Your task to perform on an android device: turn on showing notifications on the lock screen Image 0: 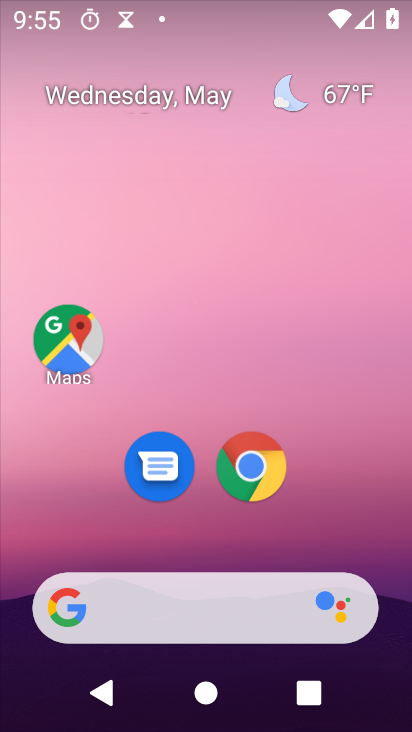
Step 0: drag from (296, 491) to (219, 59)
Your task to perform on an android device: turn on showing notifications on the lock screen Image 1: 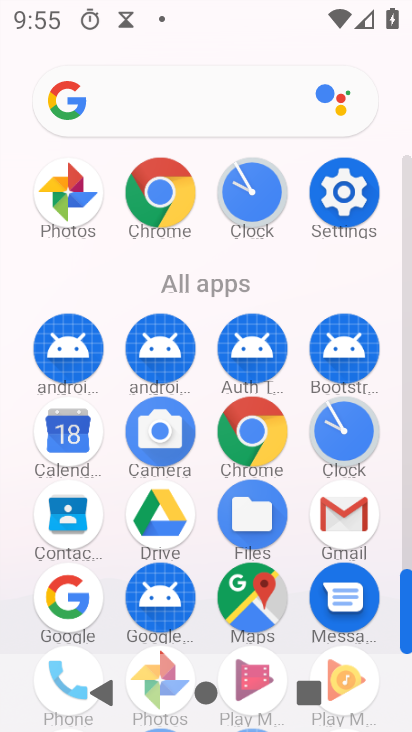
Step 1: click (340, 202)
Your task to perform on an android device: turn on showing notifications on the lock screen Image 2: 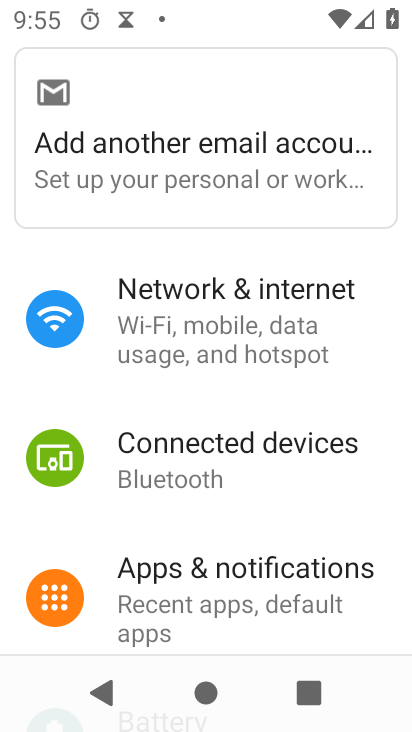
Step 2: drag from (220, 613) to (231, 389)
Your task to perform on an android device: turn on showing notifications on the lock screen Image 3: 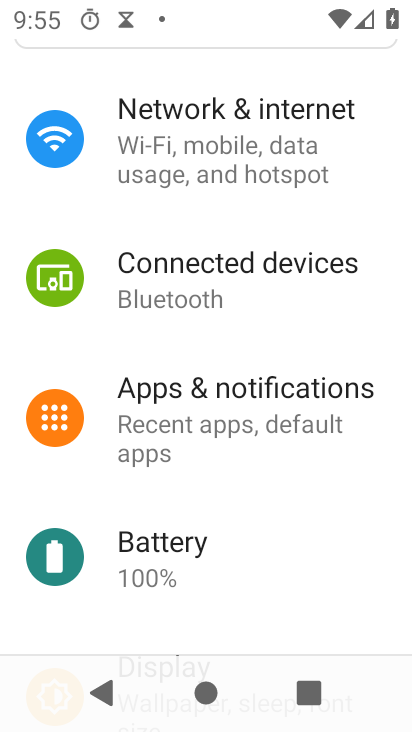
Step 3: click (217, 420)
Your task to perform on an android device: turn on showing notifications on the lock screen Image 4: 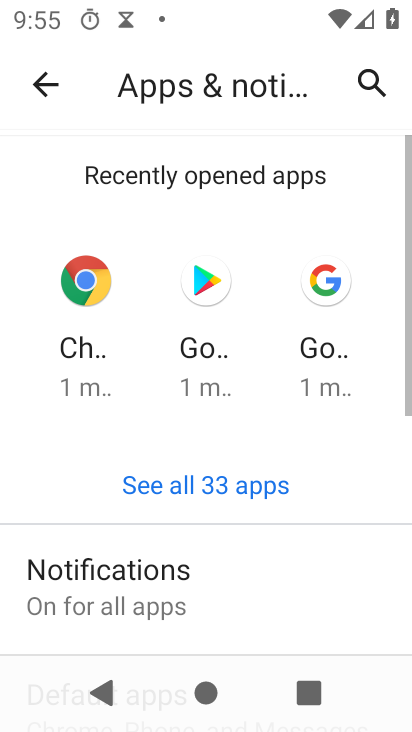
Step 4: drag from (200, 582) to (232, 283)
Your task to perform on an android device: turn on showing notifications on the lock screen Image 5: 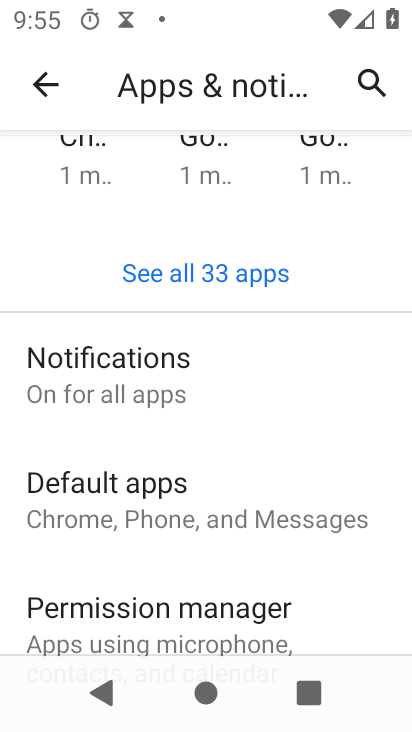
Step 5: drag from (222, 573) to (201, 344)
Your task to perform on an android device: turn on showing notifications on the lock screen Image 6: 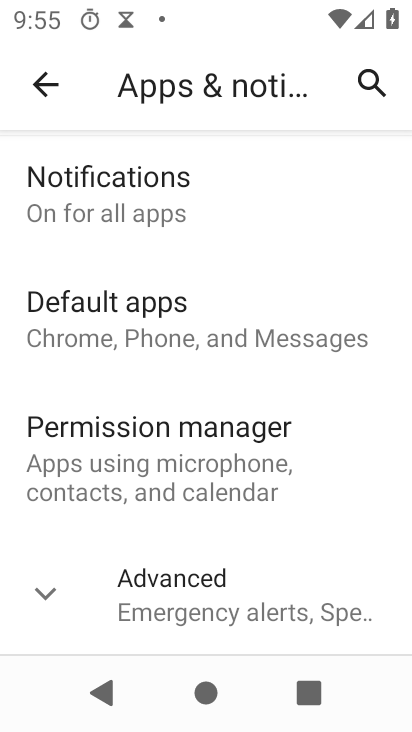
Step 6: click (163, 621)
Your task to perform on an android device: turn on showing notifications on the lock screen Image 7: 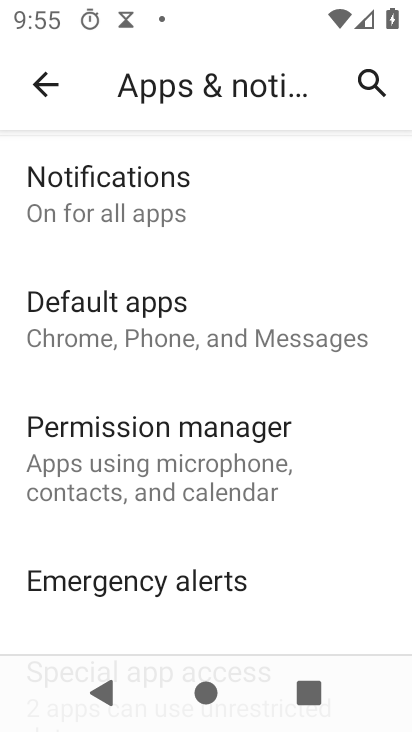
Step 7: click (163, 192)
Your task to perform on an android device: turn on showing notifications on the lock screen Image 8: 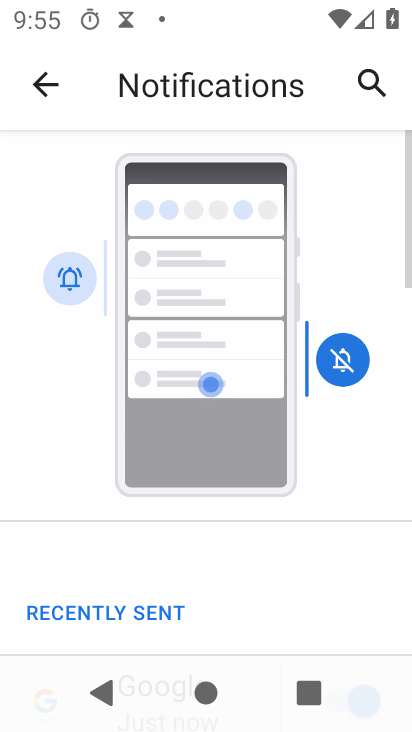
Step 8: drag from (206, 533) to (204, 152)
Your task to perform on an android device: turn on showing notifications on the lock screen Image 9: 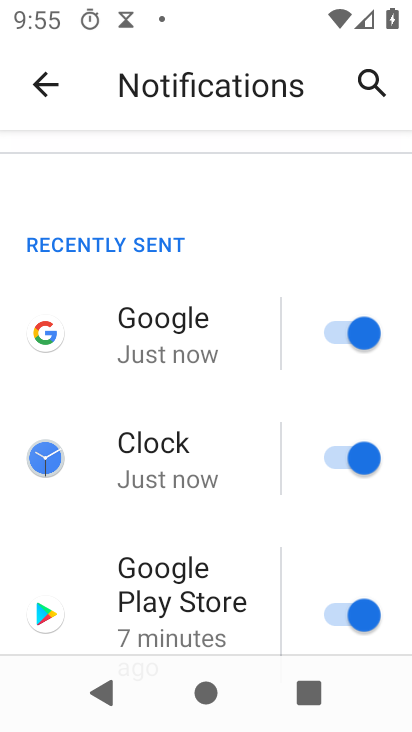
Step 9: drag from (214, 521) to (193, 131)
Your task to perform on an android device: turn on showing notifications on the lock screen Image 10: 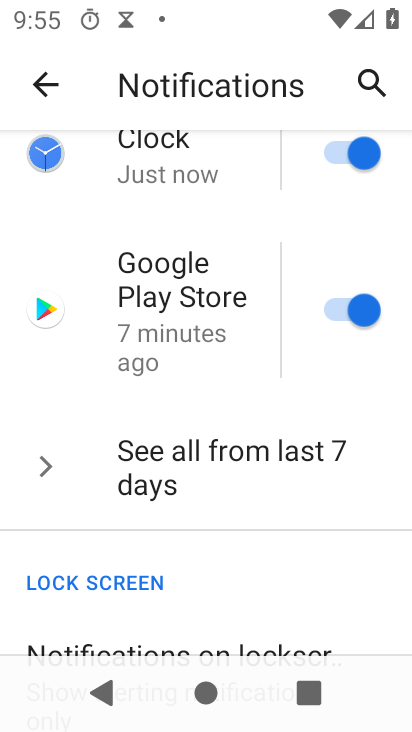
Step 10: drag from (245, 593) to (231, 216)
Your task to perform on an android device: turn on showing notifications on the lock screen Image 11: 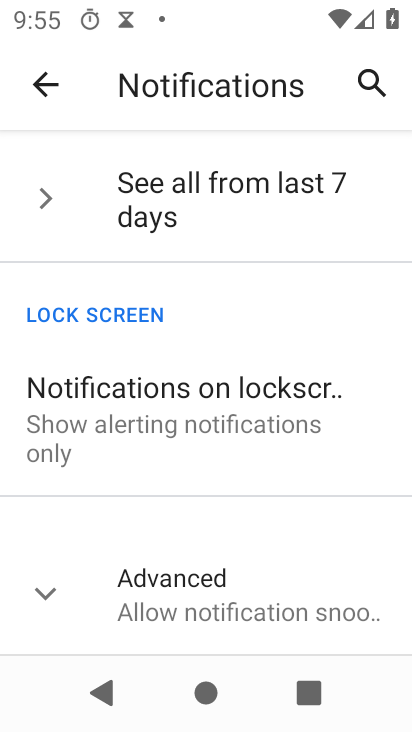
Step 11: click (137, 425)
Your task to perform on an android device: turn on showing notifications on the lock screen Image 12: 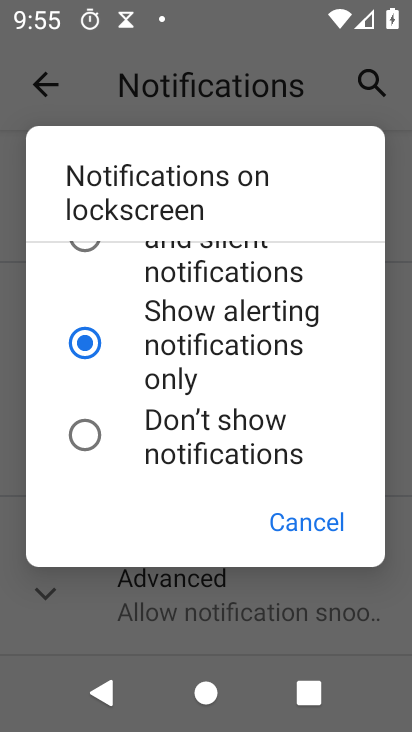
Step 12: click (83, 246)
Your task to perform on an android device: turn on showing notifications on the lock screen Image 13: 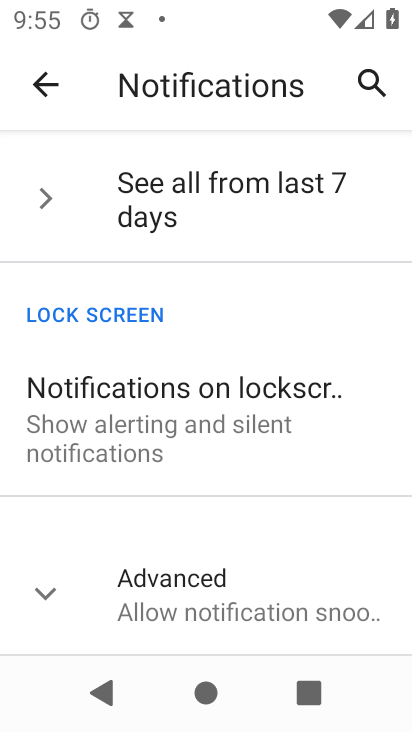
Step 13: task complete